Your task to perform on an android device: Open Wikipedia Image 0: 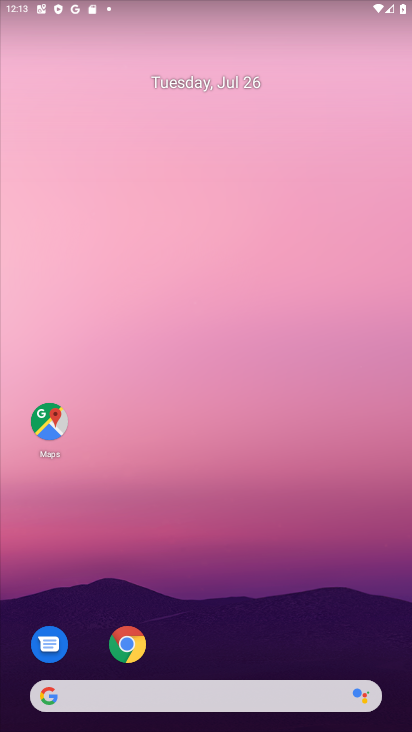
Step 0: click (139, 655)
Your task to perform on an android device: Open Wikipedia Image 1: 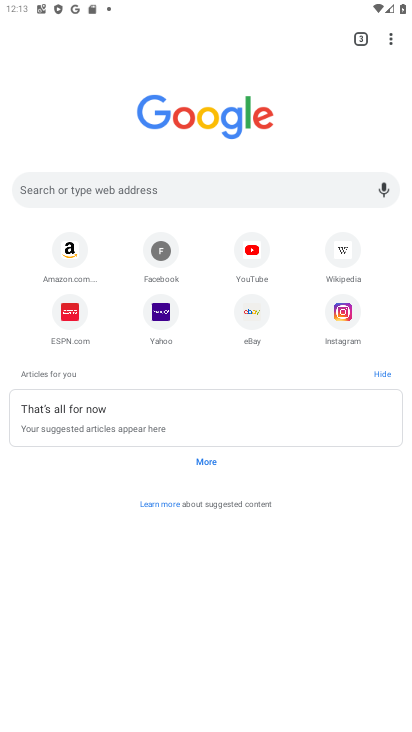
Step 1: click (341, 257)
Your task to perform on an android device: Open Wikipedia Image 2: 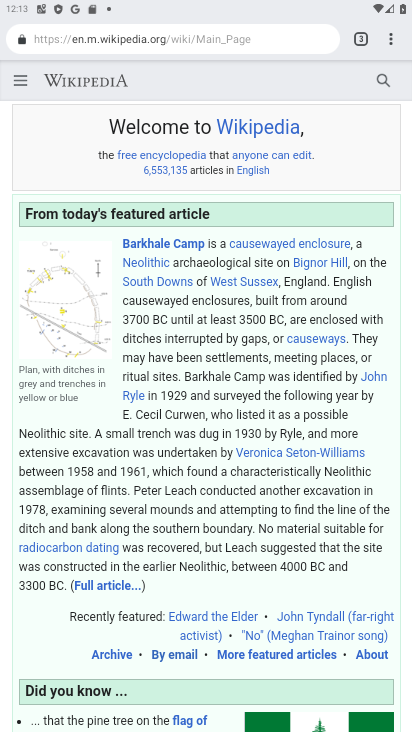
Step 2: task complete